Your task to perform on an android device: set an alarm Image 0: 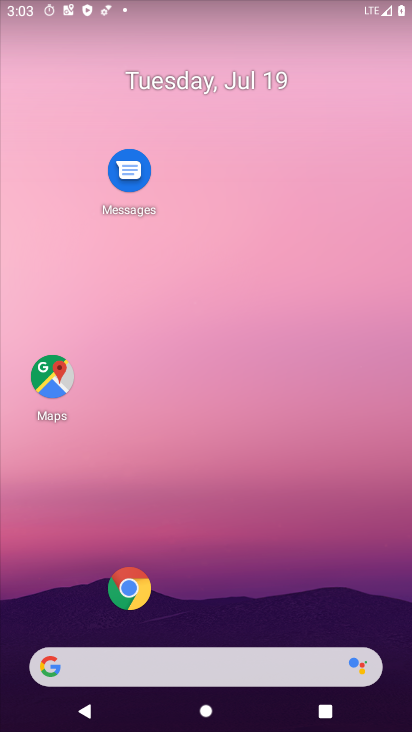
Step 0: drag from (31, 686) to (154, 86)
Your task to perform on an android device: set an alarm Image 1: 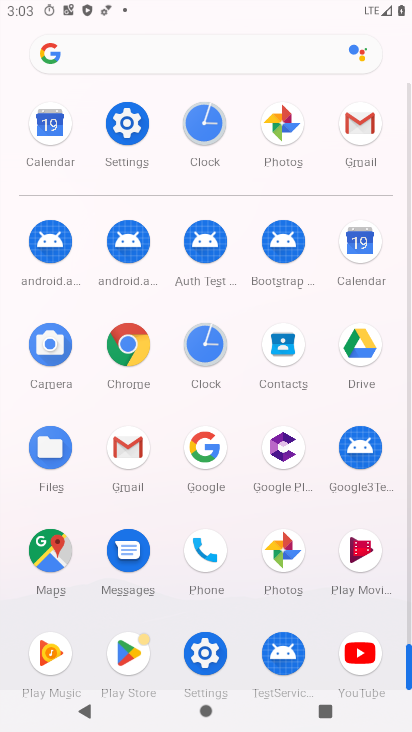
Step 1: click (189, 356)
Your task to perform on an android device: set an alarm Image 2: 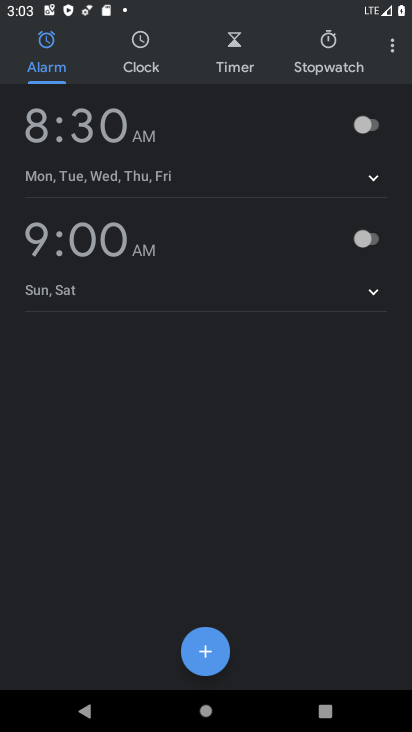
Step 2: task complete